Your task to perform on an android device: check android version Image 0: 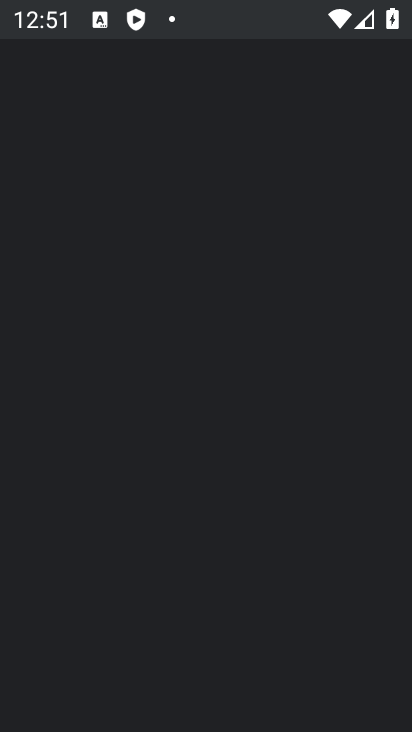
Step 0: drag from (276, 612) to (270, 153)
Your task to perform on an android device: check android version Image 1: 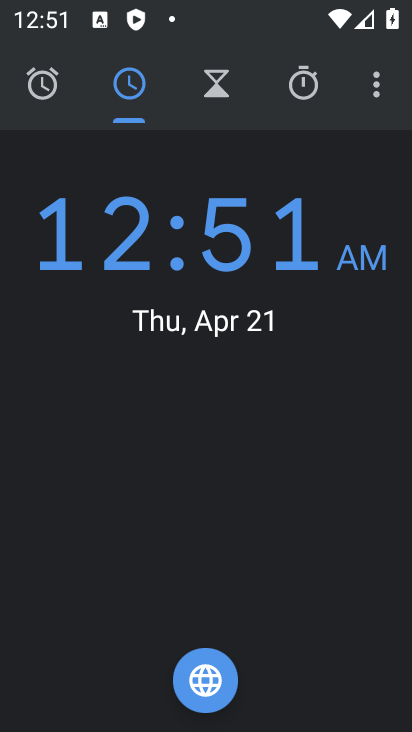
Step 1: press home button
Your task to perform on an android device: check android version Image 2: 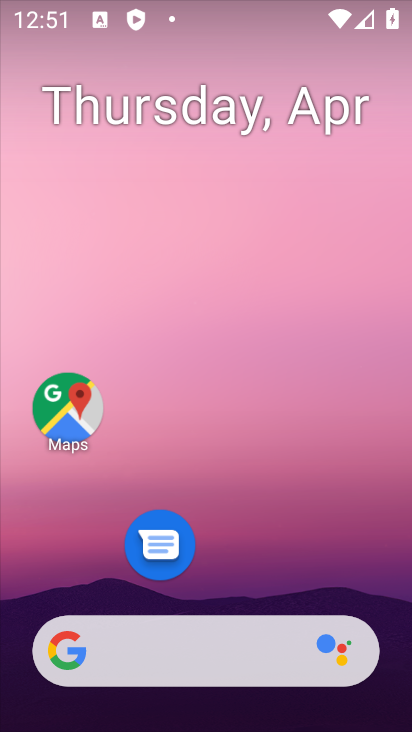
Step 2: drag from (317, 550) to (371, 77)
Your task to perform on an android device: check android version Image 3: 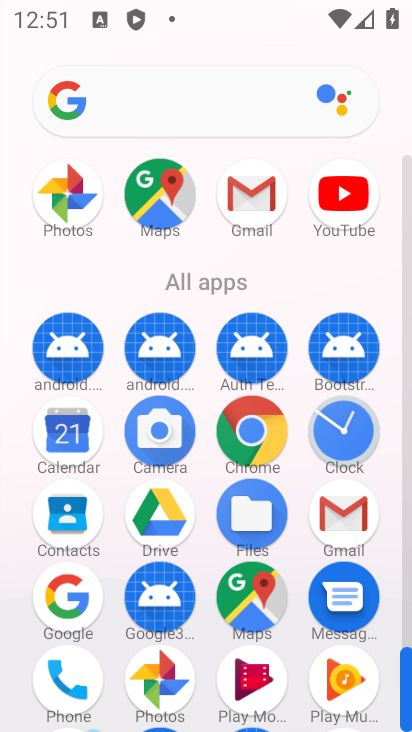
Step 3: click (407, 497)
Your task to perform on an android device: check android version Image 4: 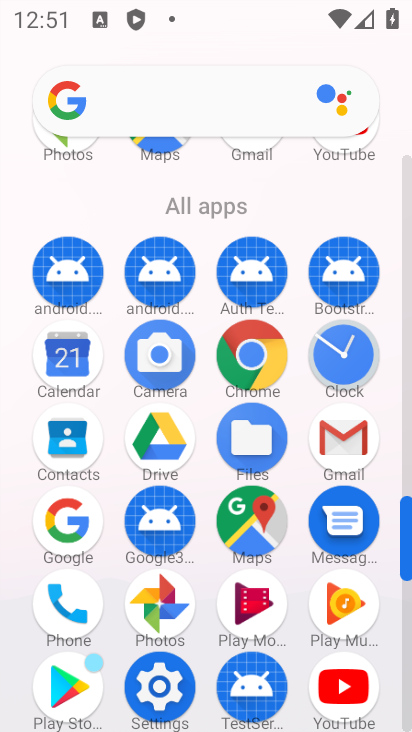
Step 4: click (409, 662)
Your task to perform on an android device: check android version Image 5: 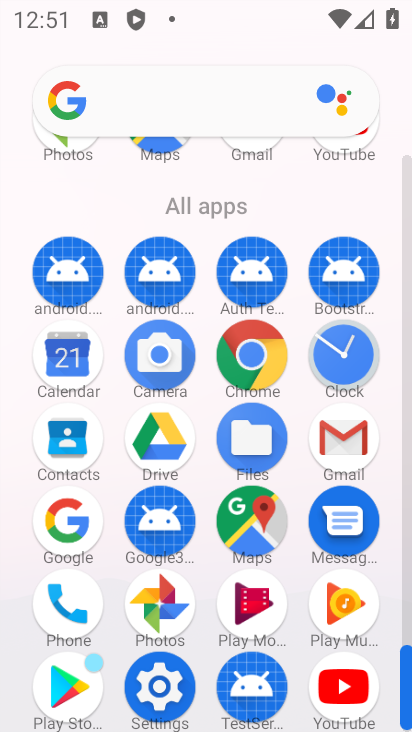
Step 5: click (172, 682)
Your task to perform on an android device: check android version Image 6: 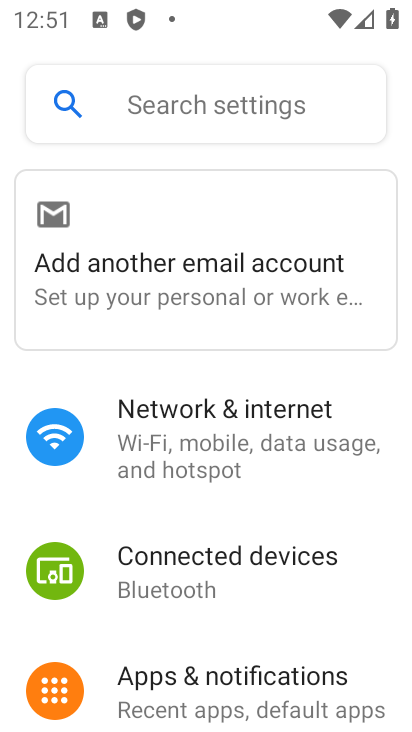
Step 6: drag from (239, 555) to (253, 210)
Your task to perform on an android device: check android version Image 7: 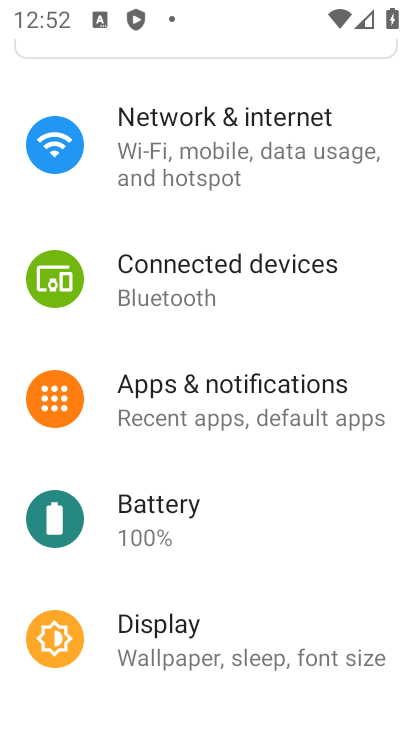
Step 7: drag from (234, 537) to (279, 145)
Your task to perform on an android device: check android version Image 8: 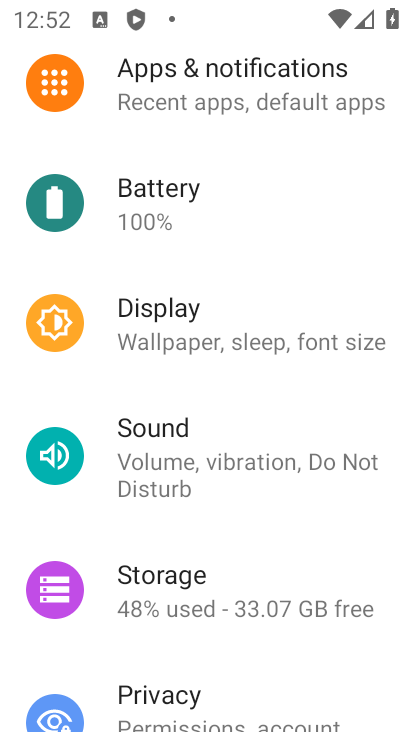
Step 8: drag from (231, 504) to (299, 61)
Your task to perform on an android device: check android version Image 9: 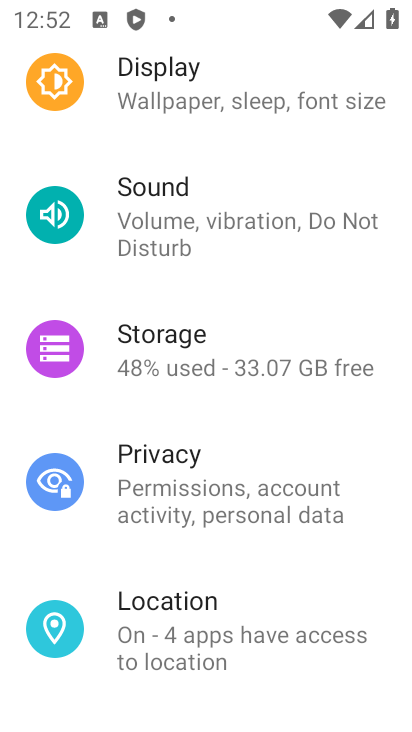
Step 9: drag from (228, 499) to (271, 220)
Your task to perform on an android device: check android version Image 10: 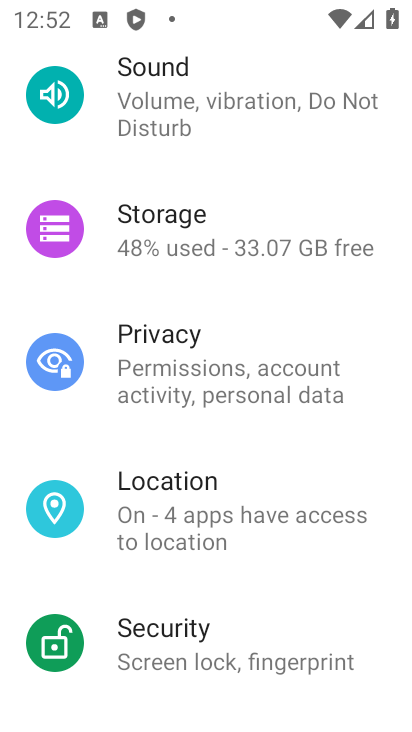
Step 10: drag from (208, 561) to (195, 167)
Your task to perform on an android device: check android version Image 11: 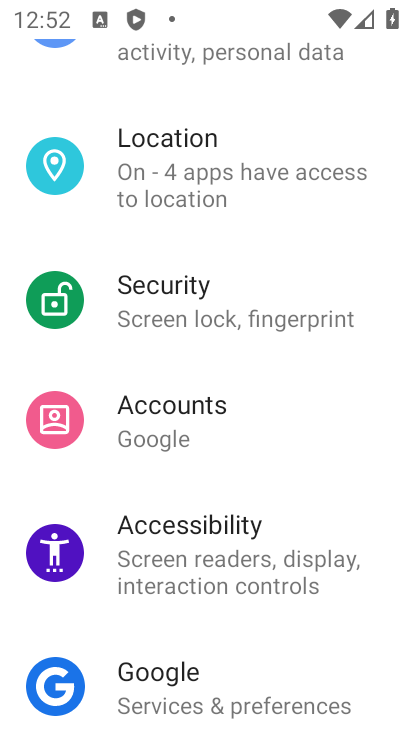
Step 11: drag from (233, 536) to (235, 214)
Your task to perform on an android device: check android version Image 12: 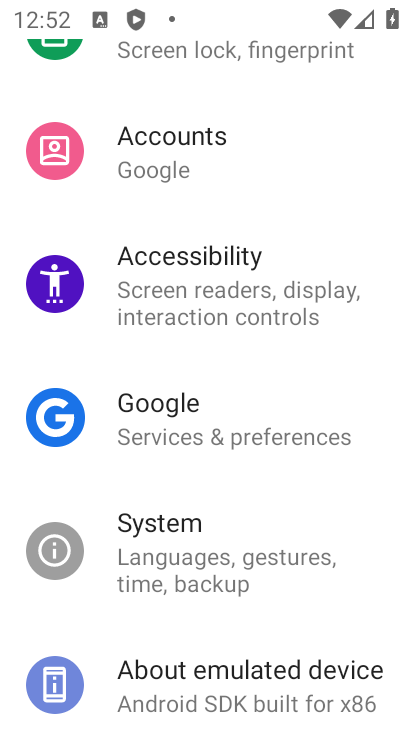
Step 12: drag from (232, 536) to (245, 177)
Your task to perform on an android device: check android version Image 13: 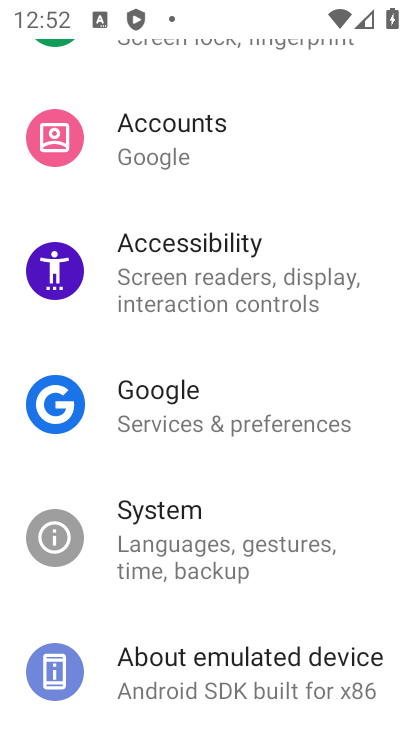
Step 13: click (220, 656)
Your task to perform on an android device: check android version Image 14: 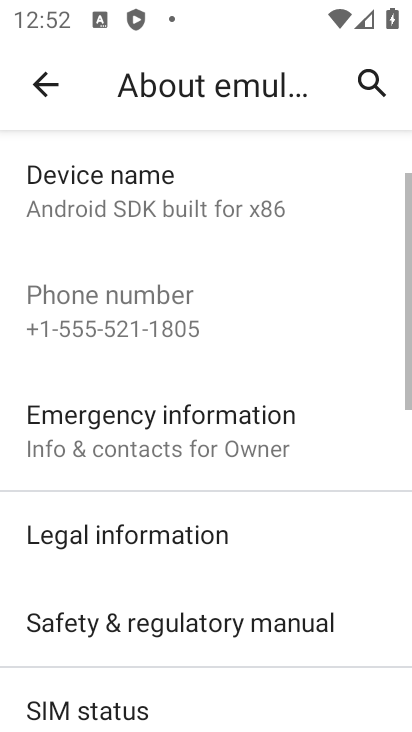
Step 14: drag from (268, 518) to (360, 160)
Your task to perform on an android device: check android version Image 15: 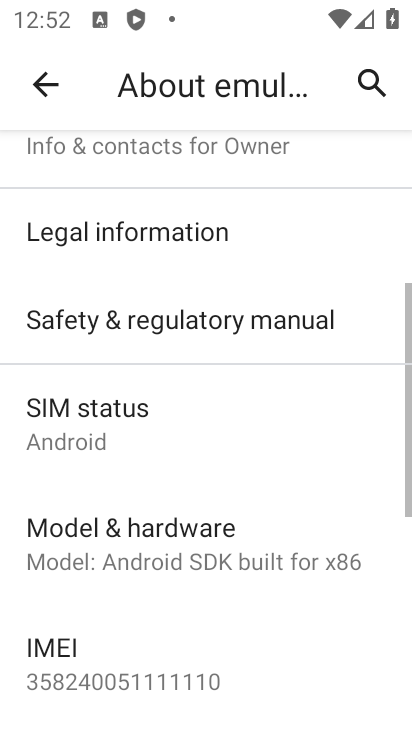
Step 15: drag from (359, 274) to (360, 227)
Your task to perform on an android device: check android version Image 16: 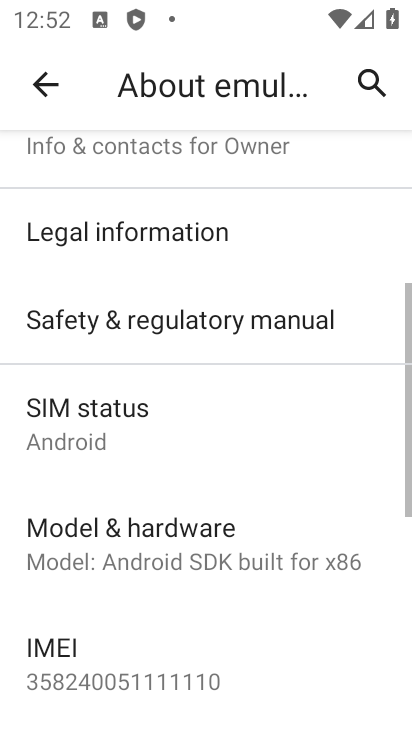
Step 16: drag from (277, 593) to (310, 325)
Your task to perform on an android device: check android version Image 17: 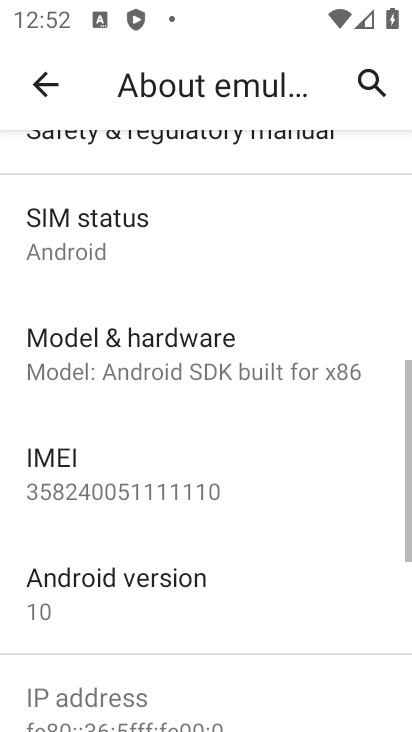
Step 17: click (229, 598)
Your task to perform on an android device: check android version Image 18: 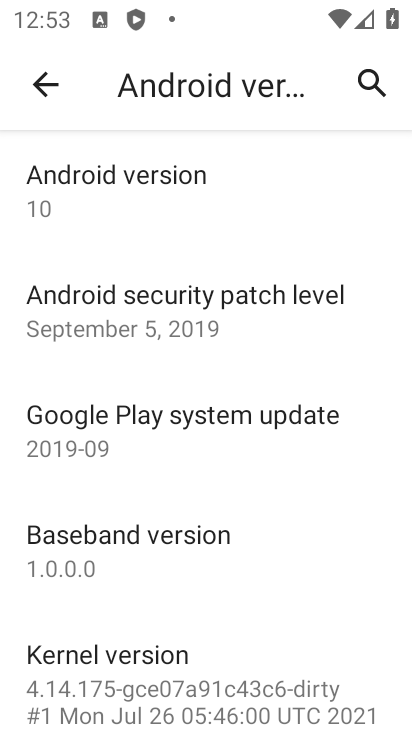
Step 18: task complete